Your task to perform on an android device: Do I have any events this weekend? Image 0: 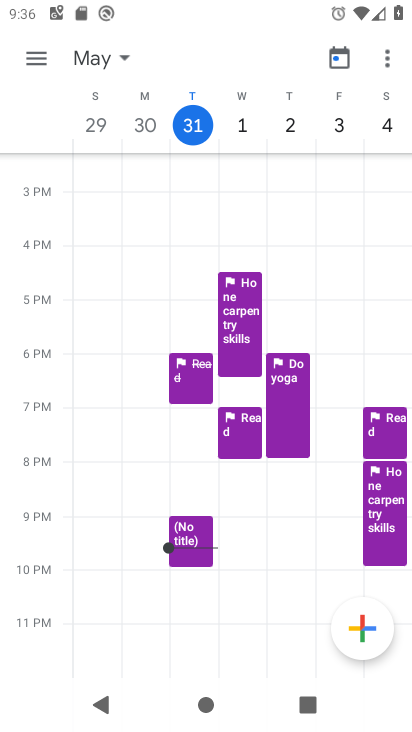
Step 0: press home button
Your task to perform on an android device: Do I have any events this weekend? Image 1: 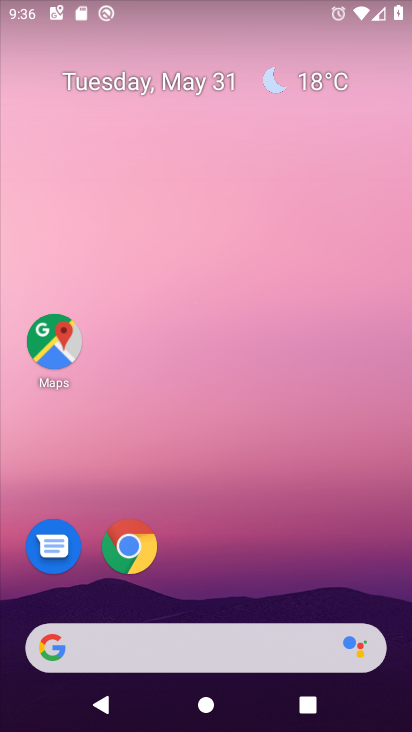
Step 1: drag from (202, 573) to (216, 279)
Your task to perform on an android device: Do I have any events this weekend? Image 2: 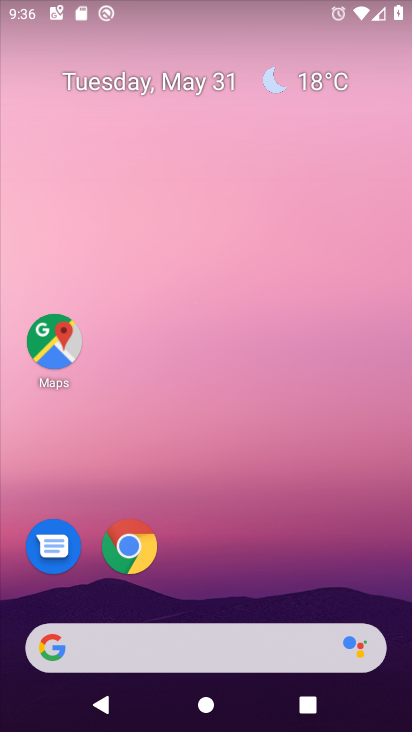
Step 2: drag from (223, 602) to (217, 2)
Your task to perform on an android device: Do I have any events this weekend? Image 3: 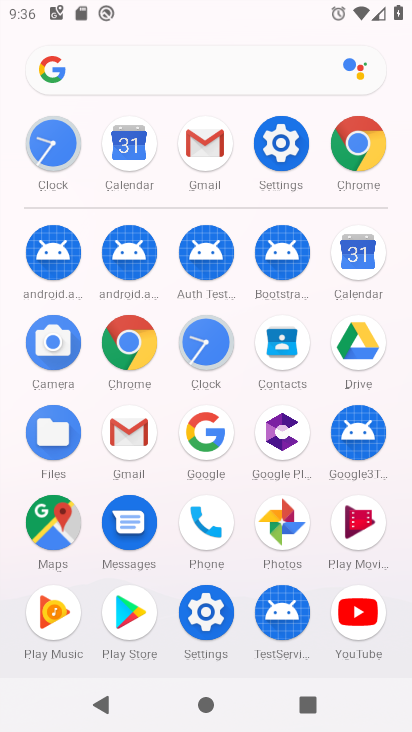
Step 3: click (367, 263)
Your task to perform on an android device: Do I have any events this weekend? Image 4: 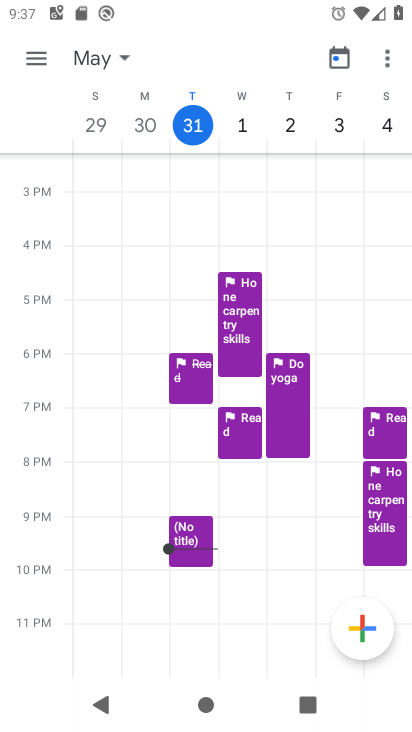
Step 4: task complete